Your task to perform on an android device: Open the calendar app, open the side menu, and click the "Day" option Image 0: 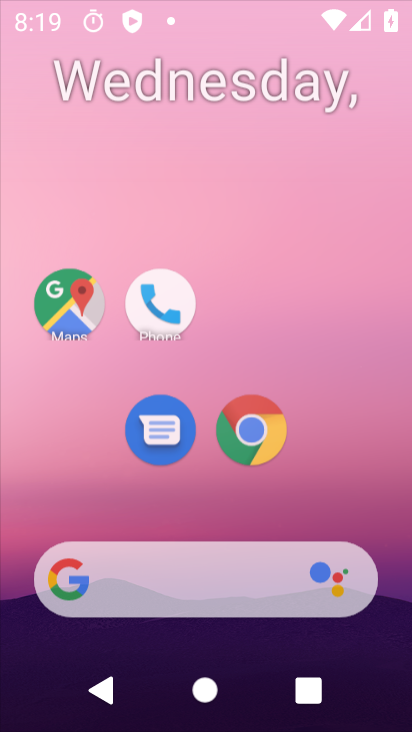
Step 0: drag from (325, 375) to (327, 121)
Your task to perform on an android device: Open the calendar app, open the side menu, and click the "Day" option Image 1: 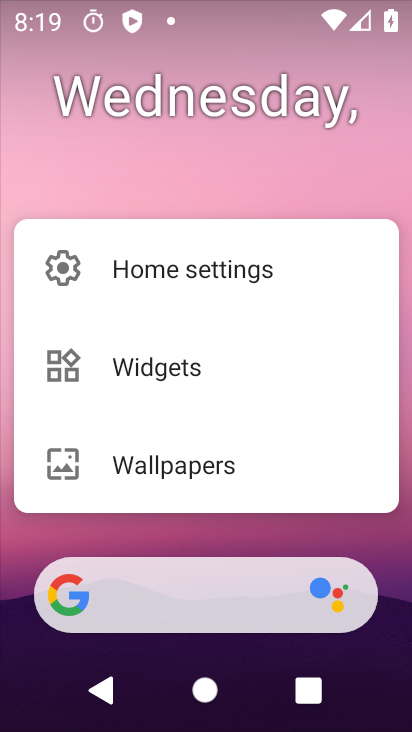
Step 1: click (374, 549)
Your task to perform on an android device: Open the calendar app, open the side menu, and click the "Day" option Image 2: 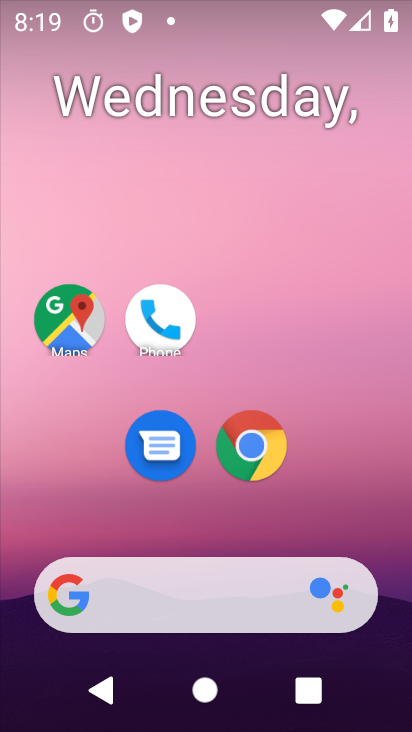
Step 2: drag from (374, 549) to (329, 128)
Your task to perform on an android device: Open the calendar app, open the side menu, and click the "Day" option Image 3: 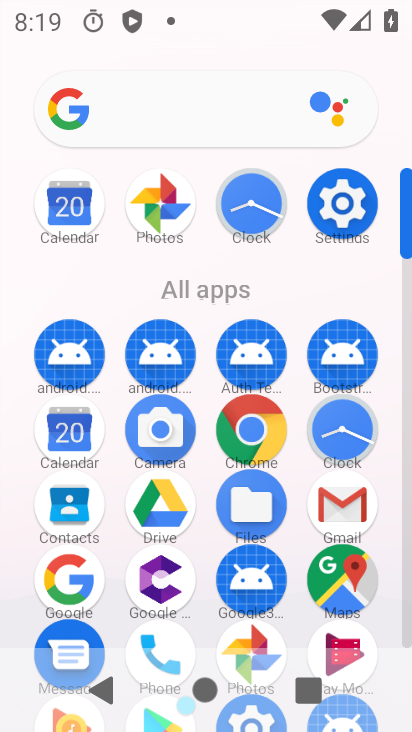
Step 3: click (71, 454)
Your task to perform on an android device: Open the calendar app, open the side menu, and click the "Day" option Image 4: 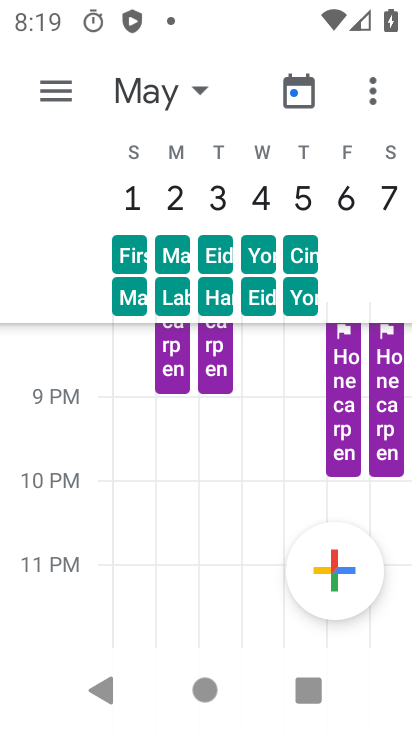
Step 4: click (61, 103)
Your task to perform on an android device: Open the calendar app, open the side menu, and click the "Day" option Image 5: 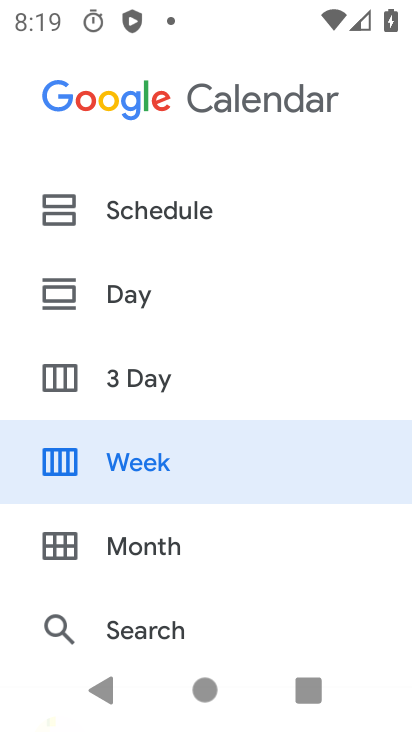
Step 5: click (78, 303)
Your task to perform on an android device: Open the calendar app, open the side menu, and click the "Day" option Image 6: 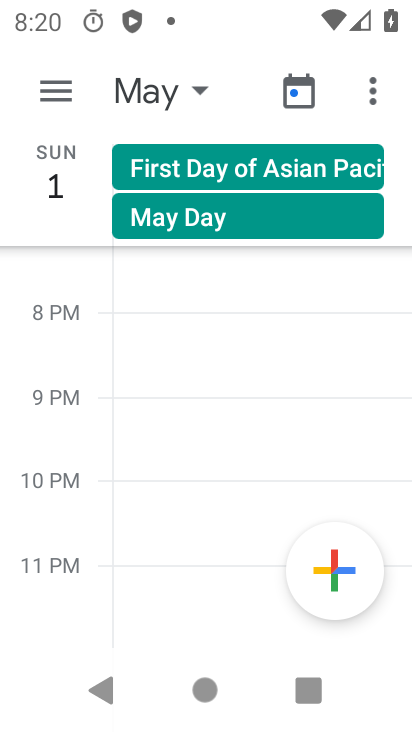
Step 6: task complete